Your task to perform on an android device: Open my contact list Image 0: 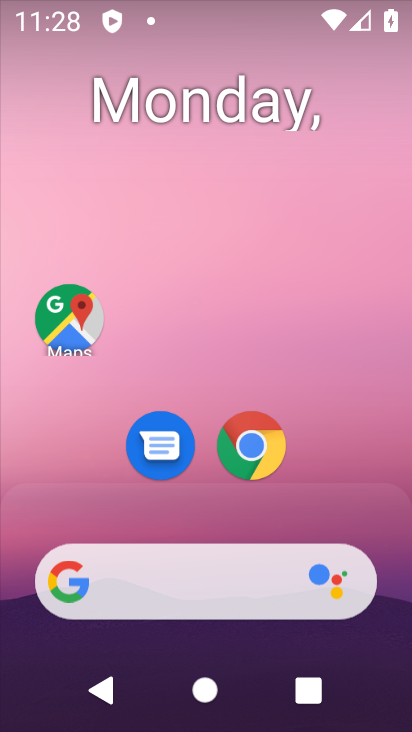
Step 0: drag from (121, 547) to (209, 169)
Your task to perform on an android device: Open my contact list Image 1: 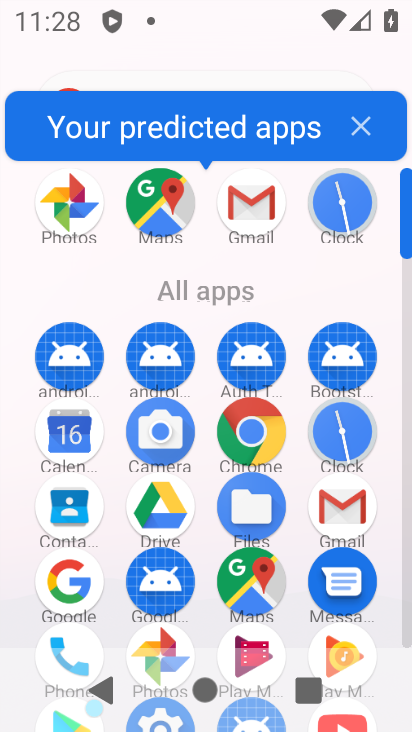
Step 1: click (70, 528)
Your task to perform on an android device: Open my contact list Image 2: 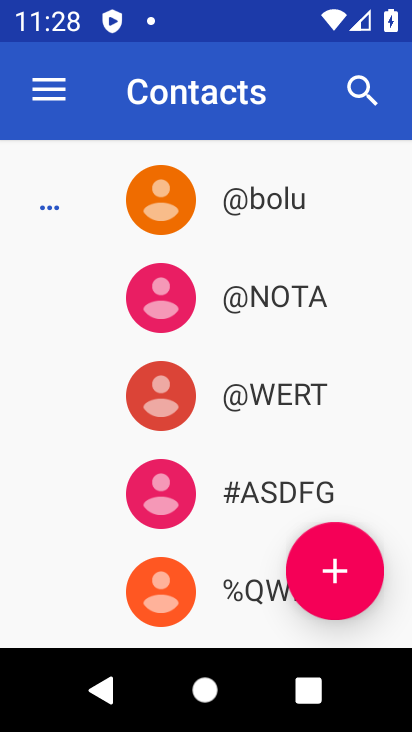
Step 2: task complete